Your task to perform on an android device: What's the weather? Image 0: 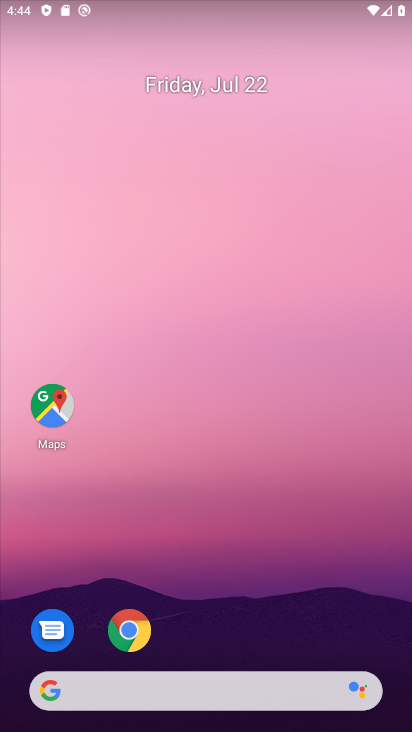
Step 0: click (162, 680)
Your task to perform on an android device: What's the weather? Image 1: 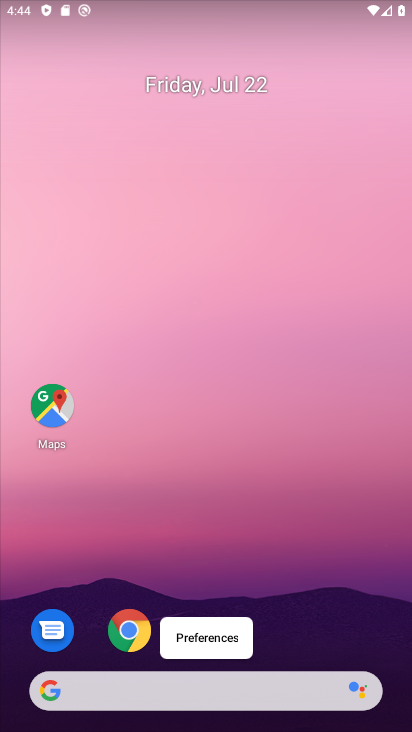
Step 1: click (144, 691)
Your task to perform on an android device: What's the weather? Image 2: 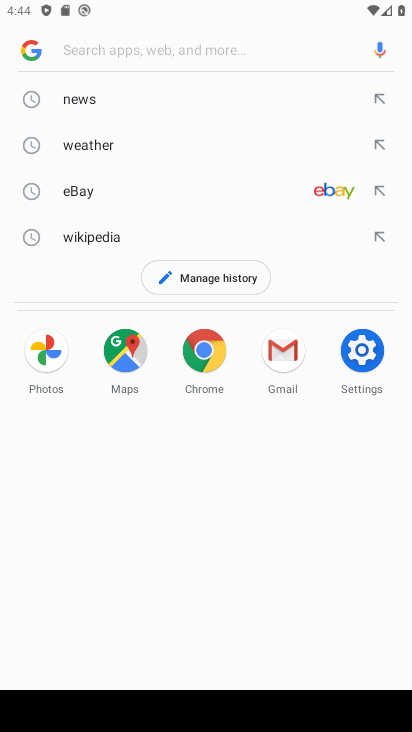
Step 2: click (87, 142)
Your task to perform on an android device: What's the weather? Image 3: 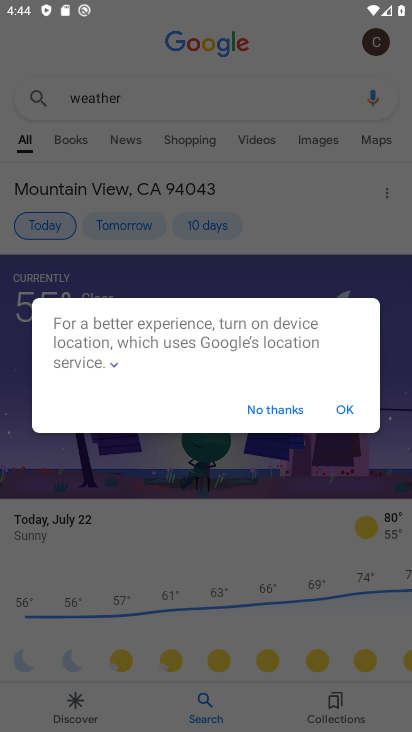
Step 3: task complete